Your task to perform on an android device: turn off data saver in the chrome app Image 0: 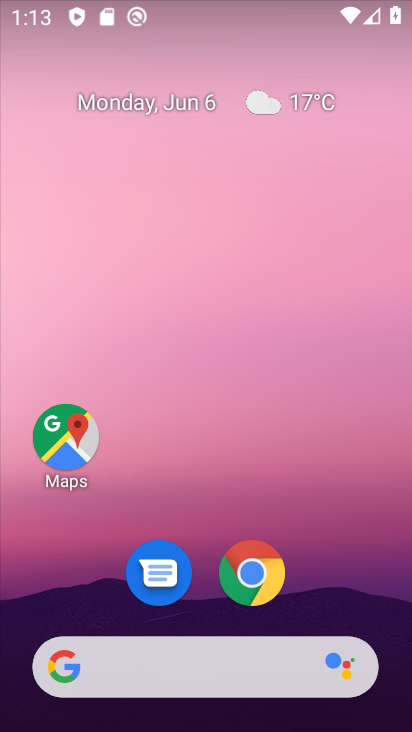
Step 0: drag from (350, 570) to (357, 195)
Your task to perform on an android device: turn off data saver in the chrome app Image 1: 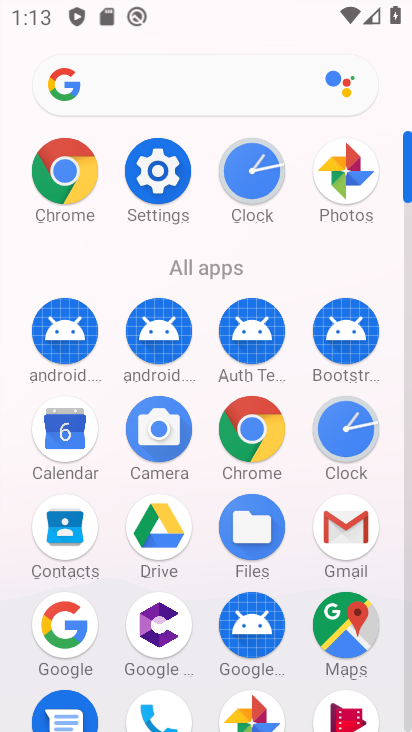
Step 1: click (271, 451)
Your task to perform on an android device: turn off data saver in the chrome app Image 2: 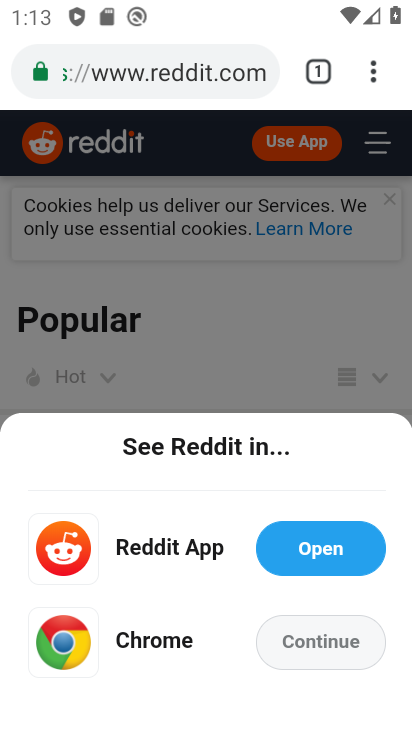
Step 2: click (370, 82)
Your task to perform on an android device: turn off data saver in the chrome app Image 3: 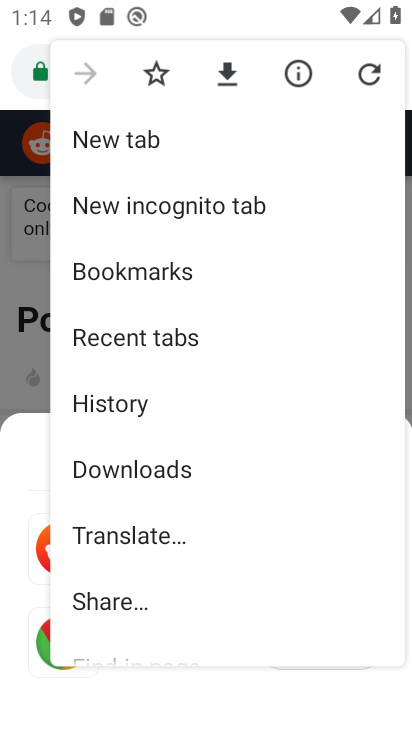
Step 3: drag from (319, 474) to (321, 345)
Your task to perform on an android device: turn off data saver in the chrome app Image 4: 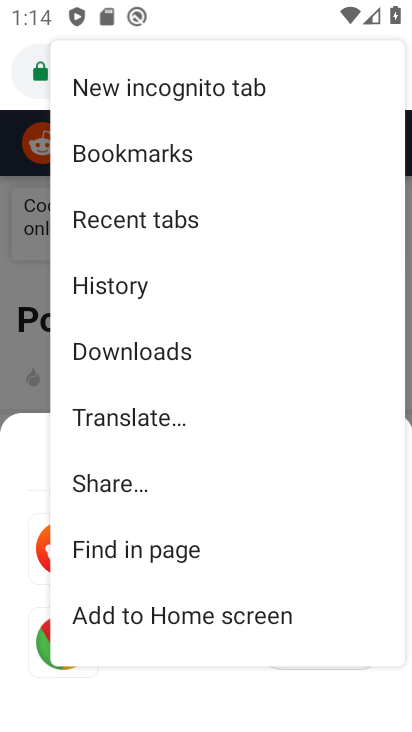
Step 4: drag from (313, 512) to (318, 418)
Your task to perform on an android device: turn off data saver in the chrome app Image 5: 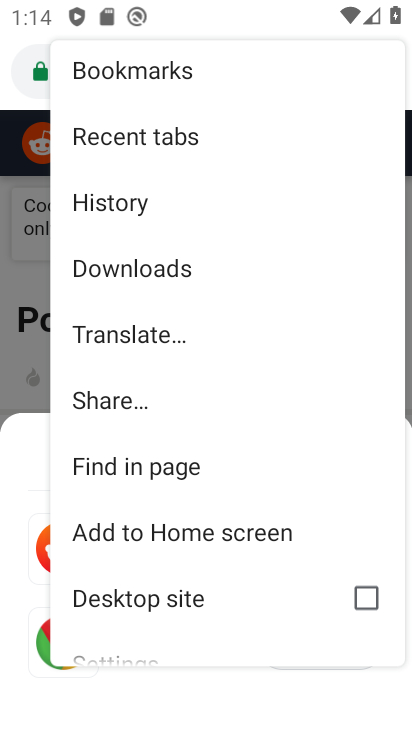
Step 5: drag from (295, 581) to (311, 440)
Your task to perform on an android device: turn off data saver in the chrome app Image 6: 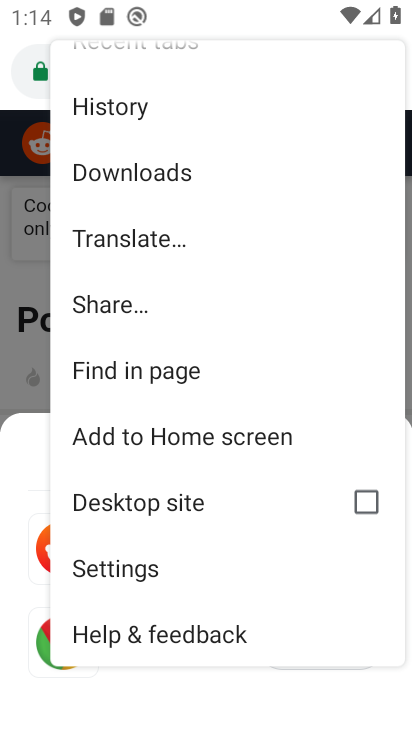
Step 6: click (178, 577)
Your task to perform on an android device: turn off data saver in the chrome app Image 7: 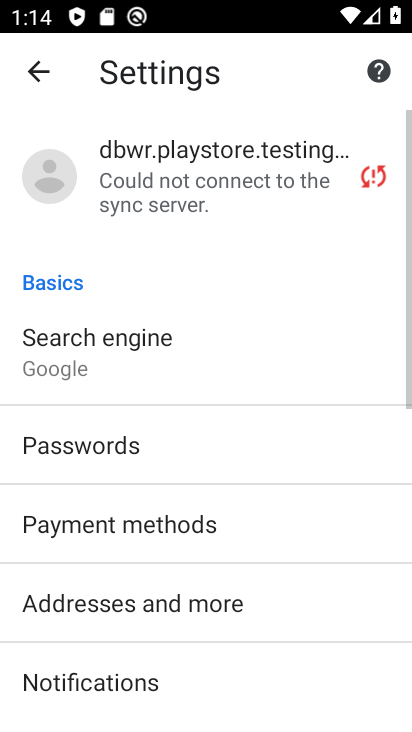
Step 7: drag from (288, 558) to (301, 471)
Your task to perform on an android device: turn off data saver in the chrome app Image 8: 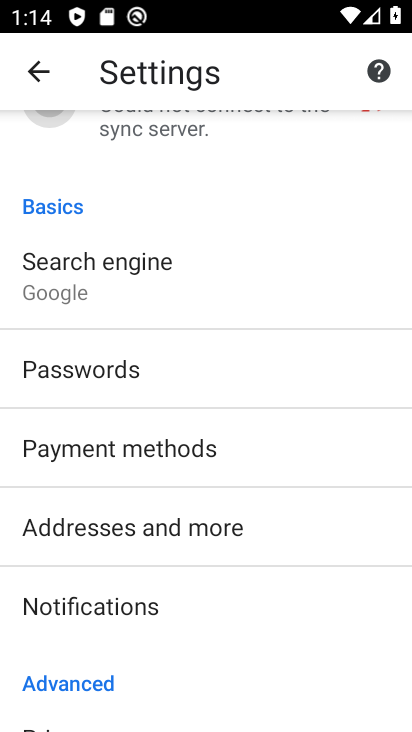
Step 8: drag from (316, 586) to (319, 500)
Your task to perform on an android device: turn off data saver in the chrome app Image 9: 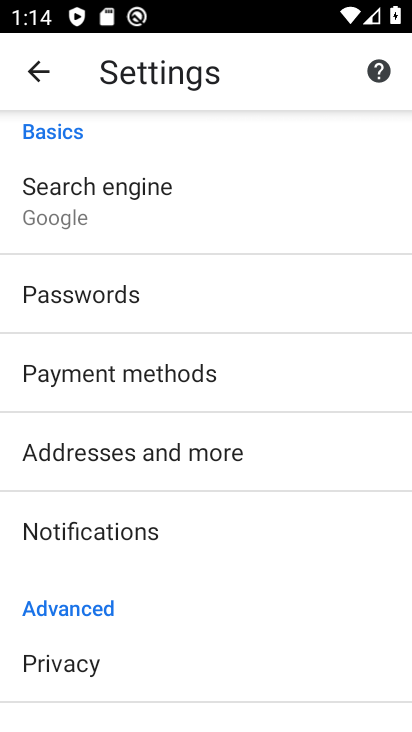
Step 9: drag from (325, 583) to (326, 499)
Your task to perform on an android device: turn off data saver in the chrome app Image 10: 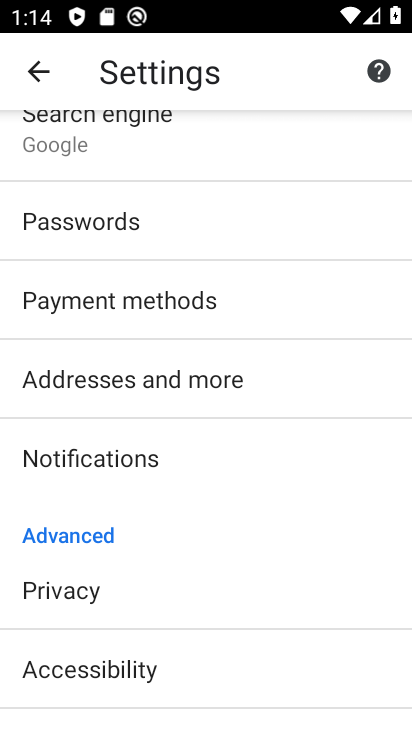
Step 10: drag from (337, 595) to (337, 508)
Your task to perform on an android device: turn off data saver in the chrome app Image 11: 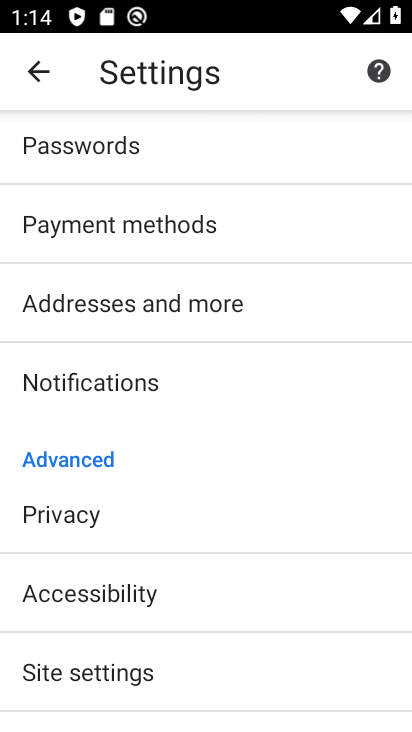
Step 11: drag from (327, 545) to (332, 410)
Your task to perform on an android device: turn off data saver in the chrome app Image 12: 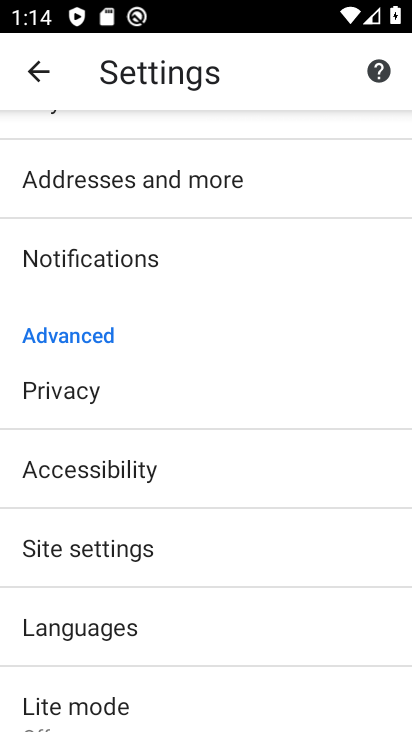
Step 12: drag from (308, 543) to (301, 404)
Your task to perform on an android device: turn off data saver in the chrome app Image 13: 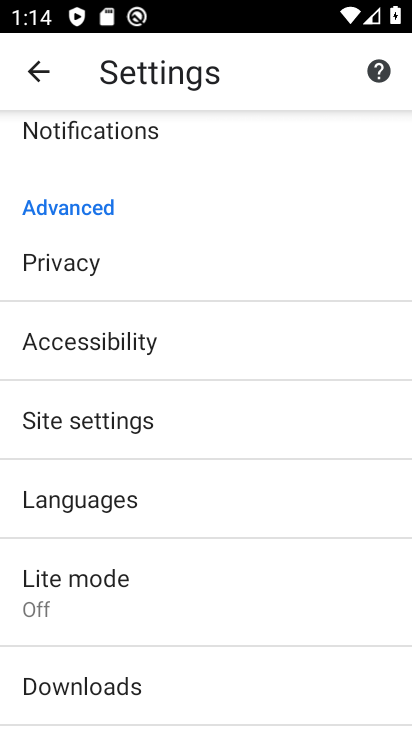
Step 13: drag from (305, 568) to (305, 431)
Your task to perform on an android device: turn off data saver in the chrome app Image 14: 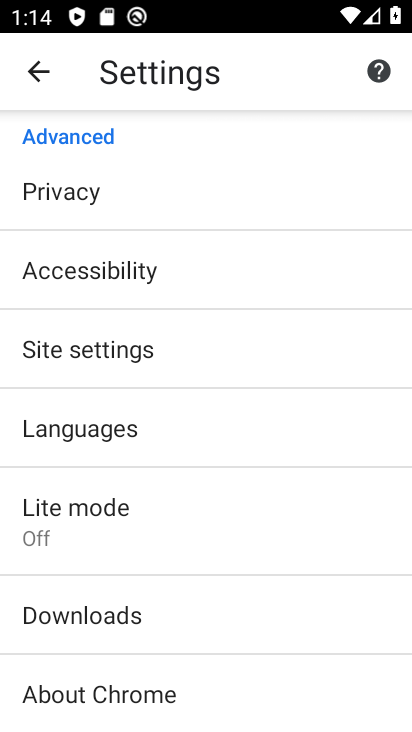
Step 14: drag from (316, 607) to (321, 468)
Your task to perform on an android device: turn off data saver in the chrome app Image 15: 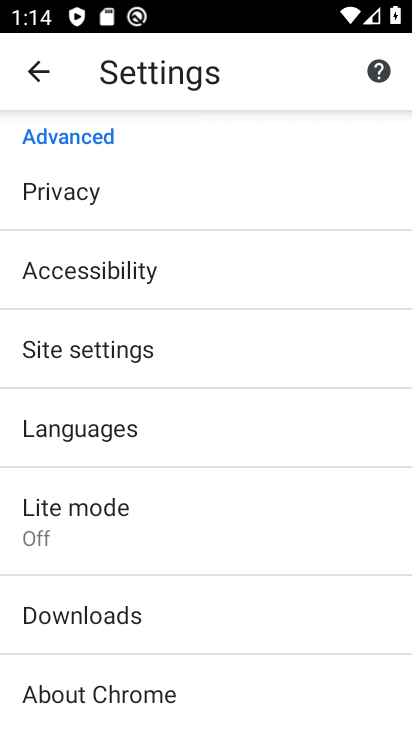
Step 15: click (219, 528)
Your task to perform on an android device: turn off data saver in the chrome app Image 16: 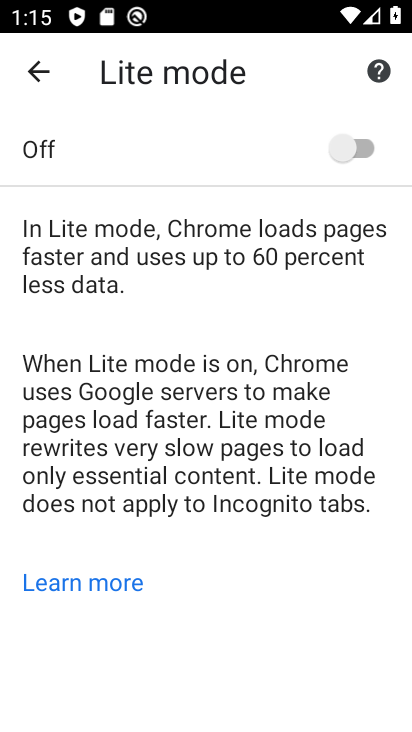
Step 16: task complete